Your task to perform on an android device: turn off javascript in the chrome app Image 0: 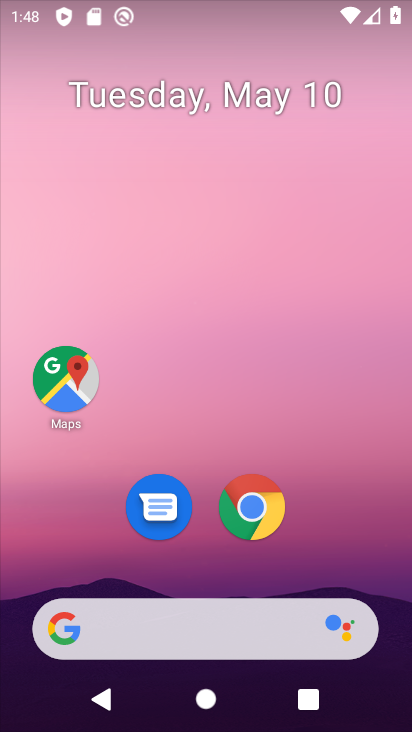
Step 0: click (201, 48)
Your task to perform on an android device: turn off javascript in the chrome app Image 1: 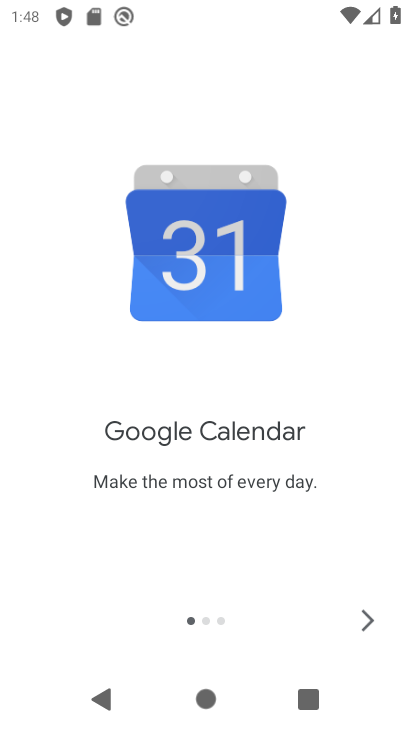
Step 1: click (361, 614)
Your task to perform on an android device: turn off javascript in the chrome app Image 2: 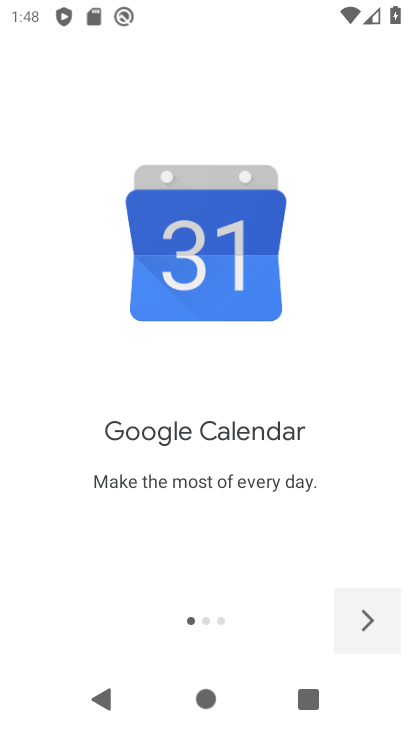
Step 2: click (364, 616)
Your task to perform on an android device: turn off javascript in the chrome app Image 3: 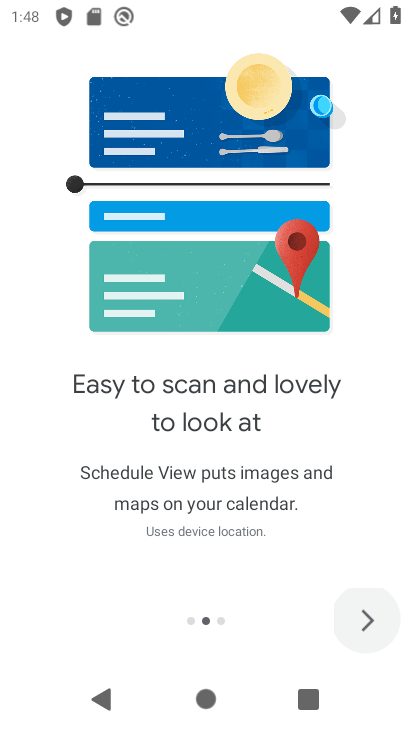
Step 3: click (364, 616)
Your task to perform on an android device: turn off javascript in the chrome app Image 4: 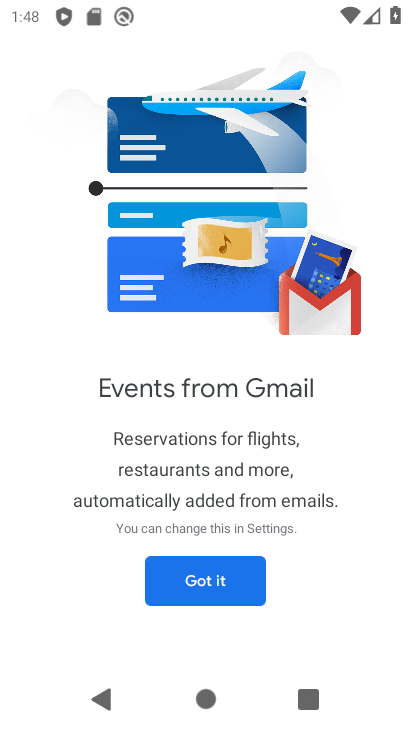
Step 4: click (362, 617)
Your task to perform on an android device: turn off javascript in the chrome app Image 5: 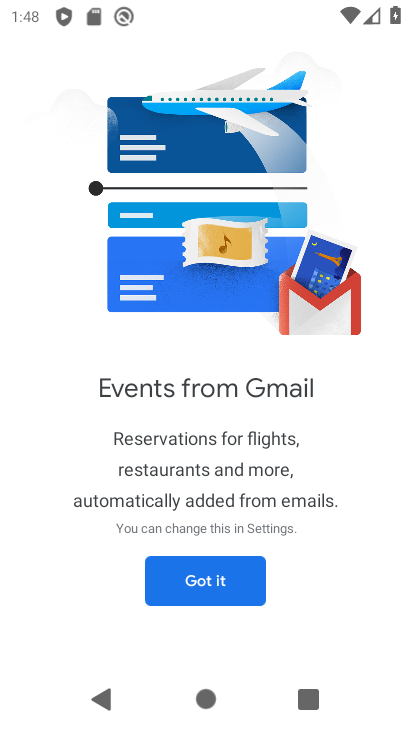
Step 5: click (218, 570)
Your task to perform on an android device: turn off javascript in the chrome app Image 6: 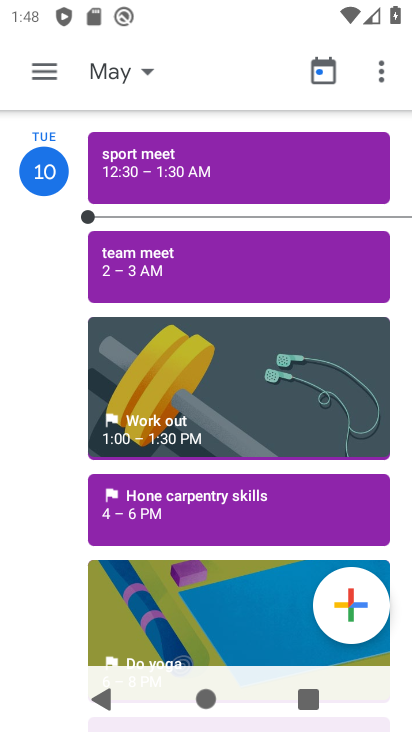
Step 6: press back button
Your task to perform on an android device: turn off javascript in the chrome app Image 7: 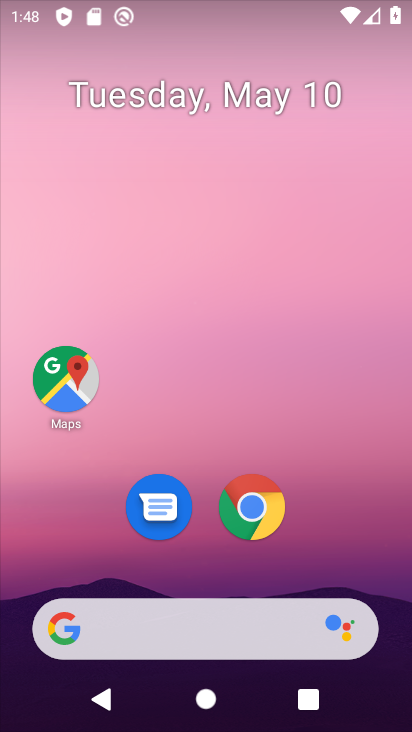
Step 7: drag from (300, 562) to (140, 171)
Your task to perform on an android device: turn off javascript in the chrome app Image 8: 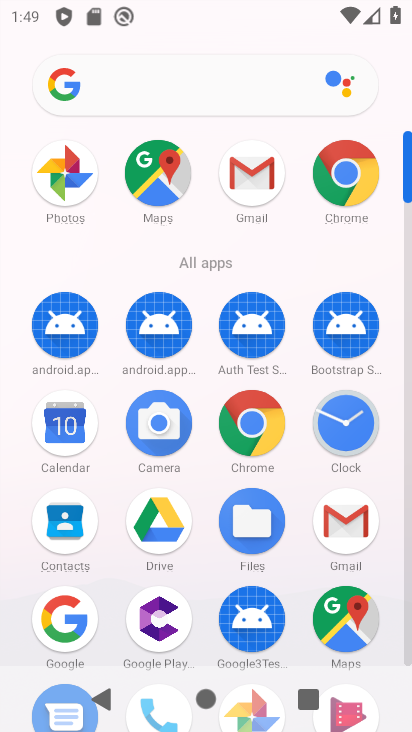
Step 8: click (344, 182)
Your task to perform on an android device: turn off javascript in the chrome app Image 9: 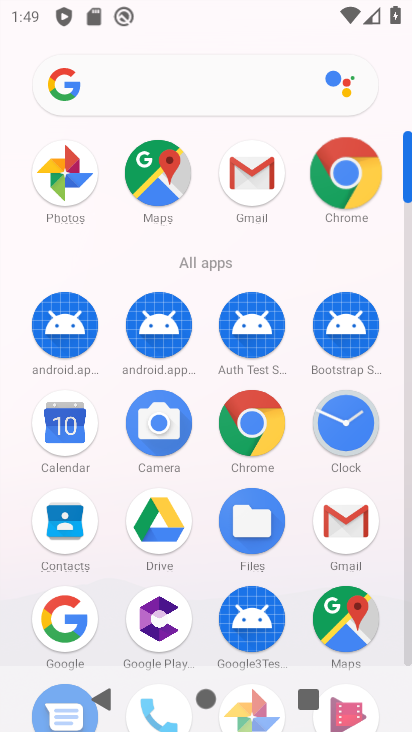
Step 9: click (344, 182)
Your task to perform on an android device: turn off javascript in the chrome app Image 10: 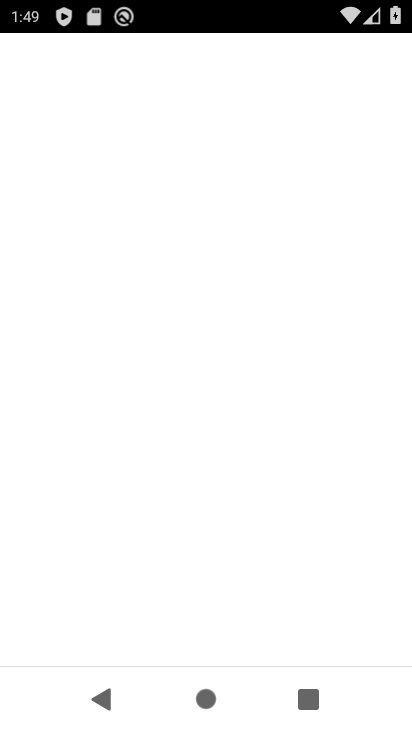
Step 10: click (346, 183)
Your task to perform on an android device: turn off javascript in the chrome app Image 11: 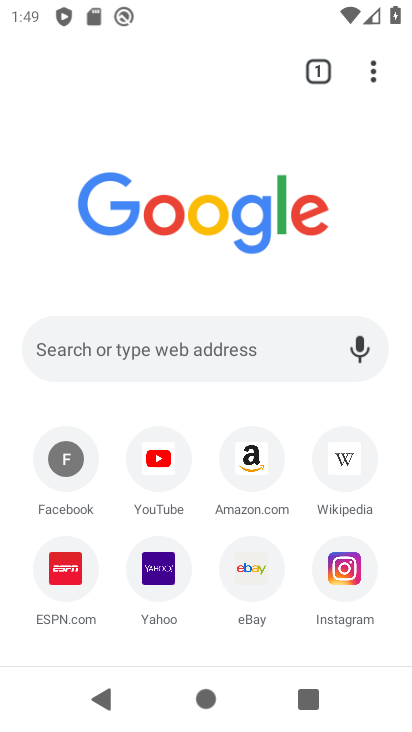
Step 11: drag from (367, 66) to (118, 505)
Your task to perform on an android device: turn off javascript in the chrome app Image 12: 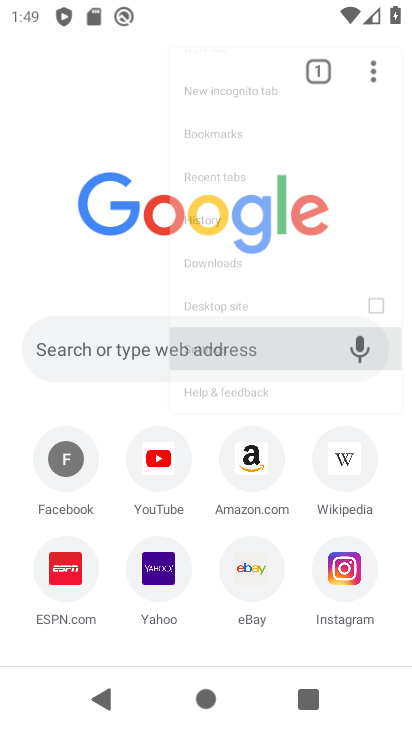
Step 12: click (118, 505)
Your task to perform on an android device: turn off javascript in the chrome app Image 13: 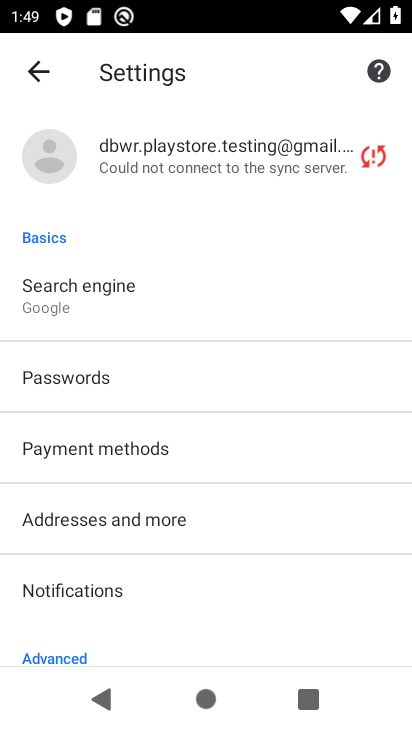
Step 13: drag from (172, 484) to (175, 166)
Your task to perform on an android device: turn off javascript in the chrome app Image 14: 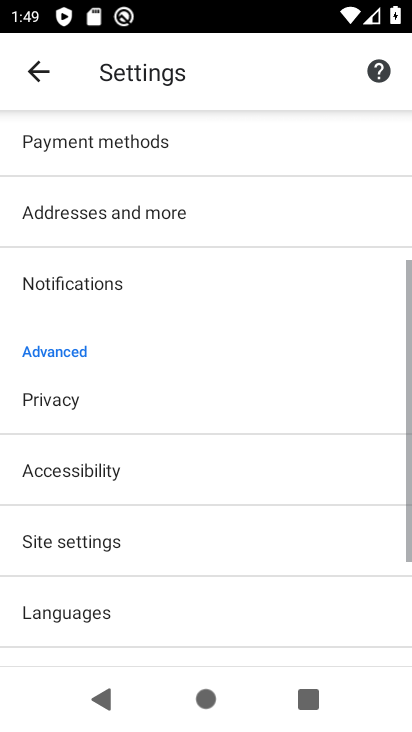
Step 14: drag from (210, 443) to (207, 153)
Your task to perform on an android device: turn off javascript in the chrome app Image 15: 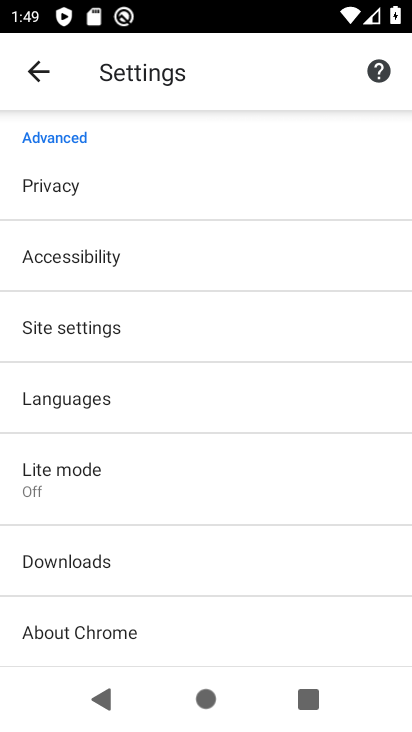
Step 15: click (56, 323)
Your task to perform on an android device: turn off javascript in the chrome app Image 16: 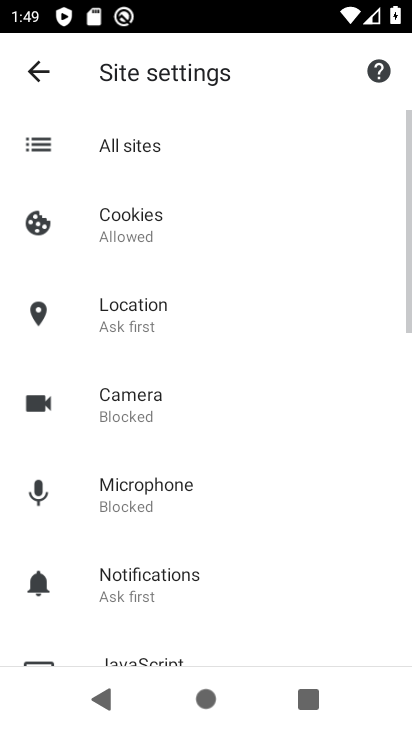
Step 16: drag from (187, 508) to (248, 161)
Your task to perform on an android device: turn off javascript in the chrome app Image 17: 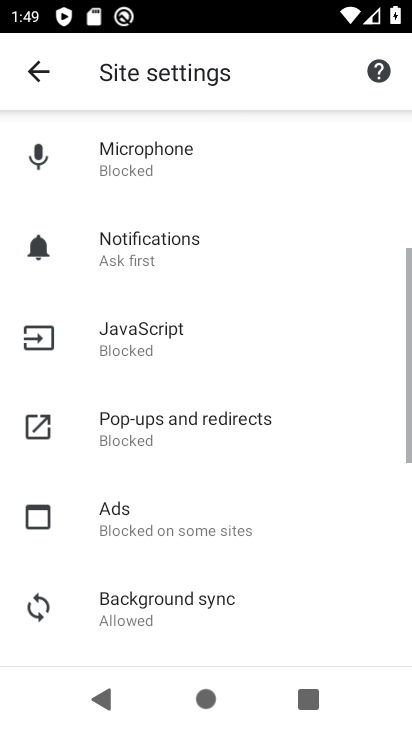
Step 17: drag from (257, 476) to (202, 108)
Your task to perform on an android device: turn off javascript in the chrome app Image 18: 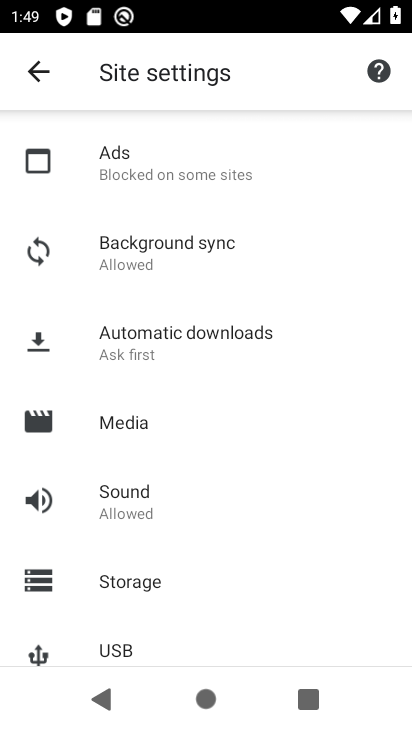
Step 18: drag from (122, 519) to (77, 202)
Your task to perform on an android device: turn off javascript in the chrome app Image 19: 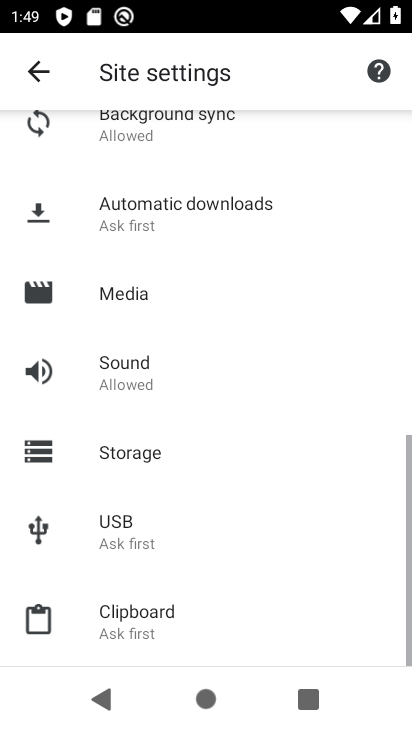
Step 19: drag from (176, 428) to (319, 218)
Your task to perform on an android device: turn off javascript in the chrome app Image 20: 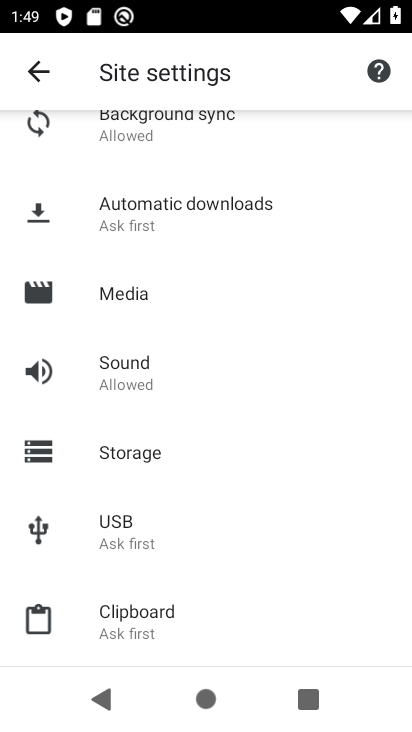
Step 20: drag from (154, 294) to (152, 604)
Your task to perform on an android device: turn off javascript in the chrome app Image 21: 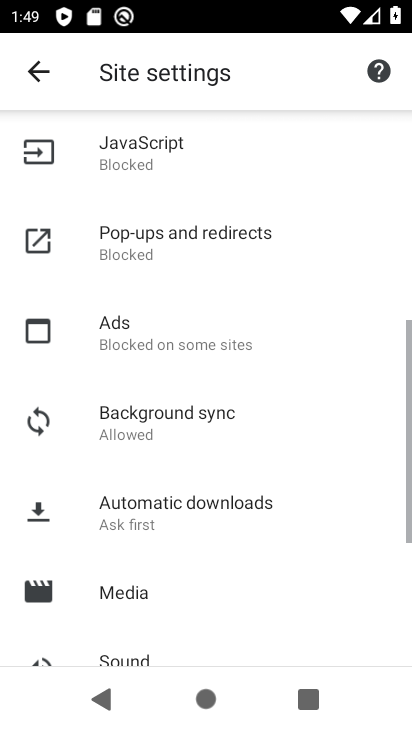
Step 21: drag from (181, 364) to (184, 531)
Your task to perform on an android device: turn off javascript in the chrome app Image 22: 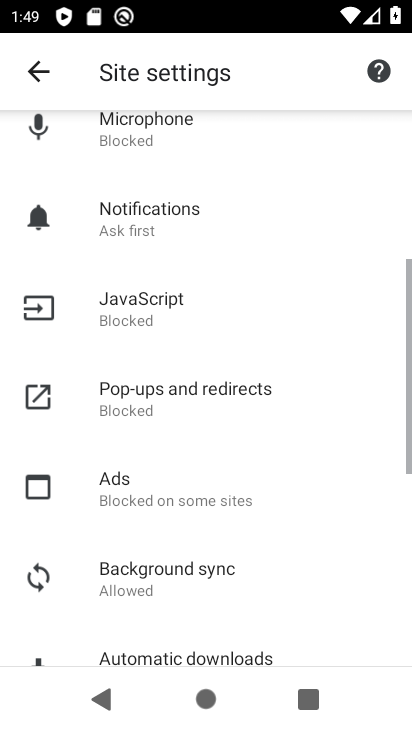
Step 22: drag from (193, 509) to (193, 569)
Your task to perform on an android device: turn off javascript in the chrome app Image 23: 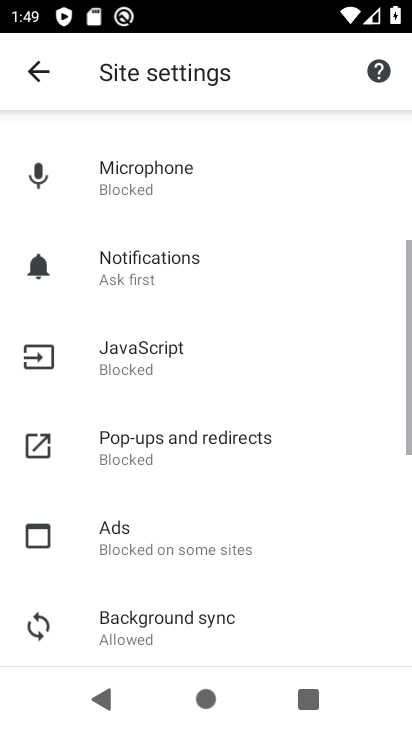
Step 23: click (126, 358)
Your task to perform on an android device: turn off javascript in the chrome app Image 24: 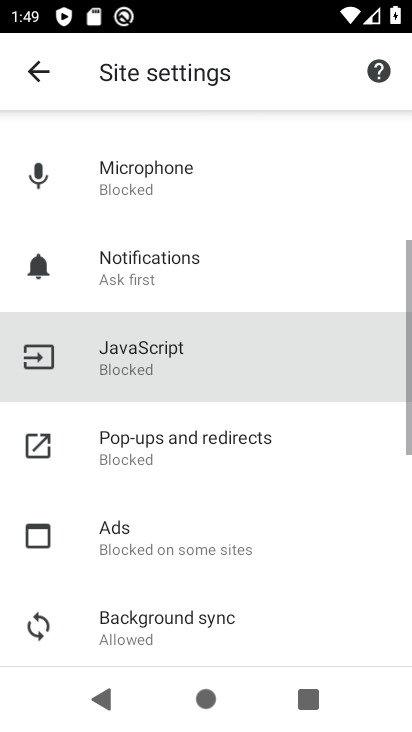
Step 24: click (126, 358)
Your task to perform on an android device: turn off javascript in the chrome app Image 25: 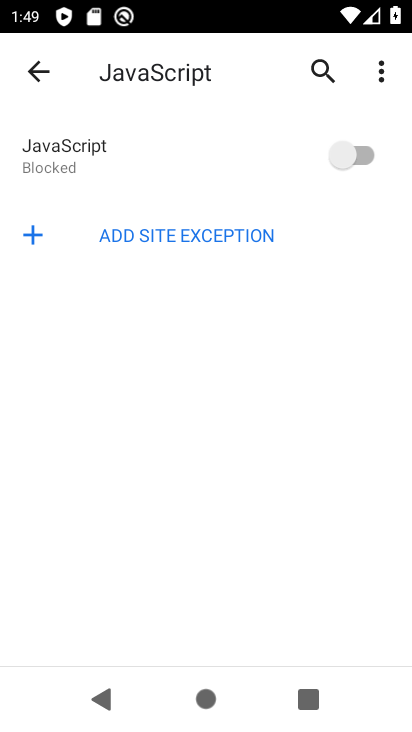
Step 25: task complete